Your task to perform on an android device: Open calendar and show me the second week of next month Image 0: 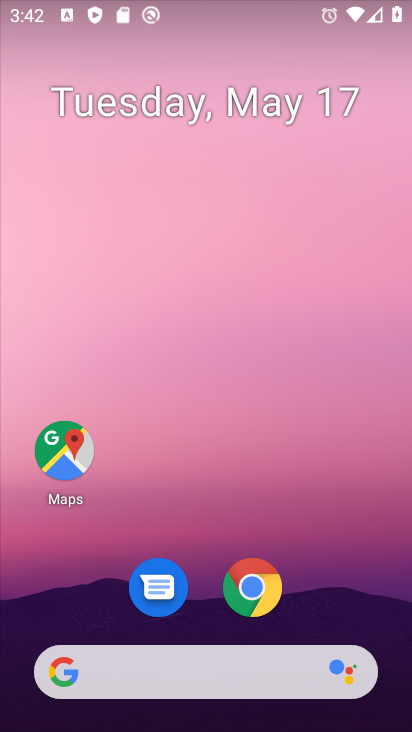
Step 0: drag from (208, 587) to (263, 200)
Your task to perform on an android device: Open calendar and show me the second week of next month Image 1: 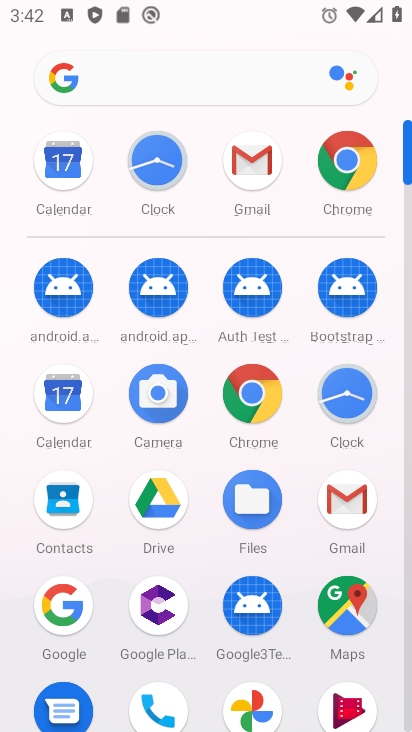
Step 1: click (66, 393)
Your task to perform on an android device: Open calendar and show me the second week of next month Image 2: 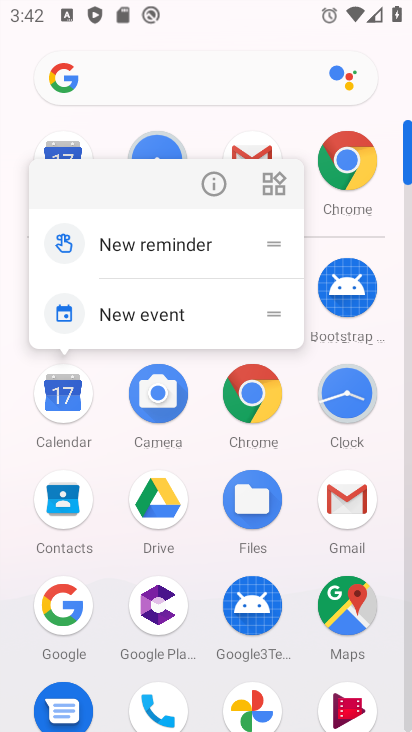
Step 2: click (218, 187)
Your task to perform on an android device: Open calendar and show me the second week of next month Image 3: 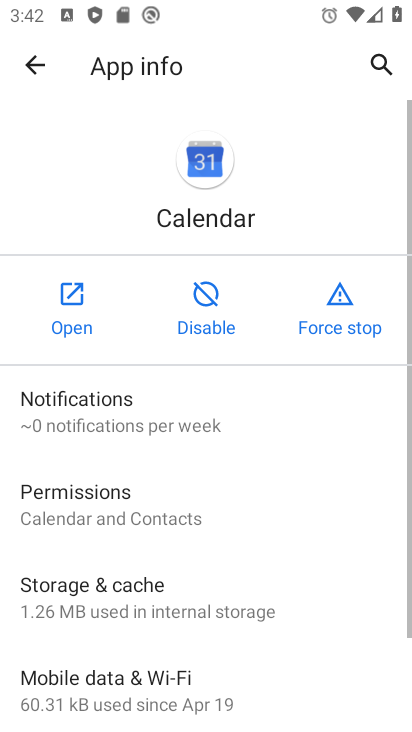
Step 3: click (84, 304)
Your task to perform on an android device: Open calendar and show me the second week of next month Image 4: 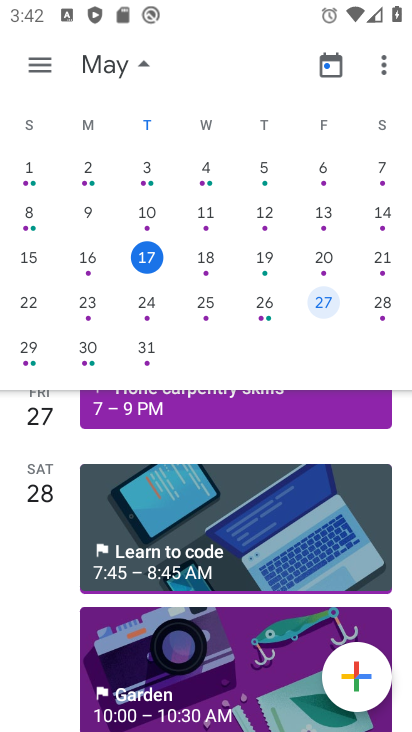
Step 4: drag from (375, 262) to (3, 250)
Your task to perform on an android device: Open calendar and show me the second week of next month Image 5: 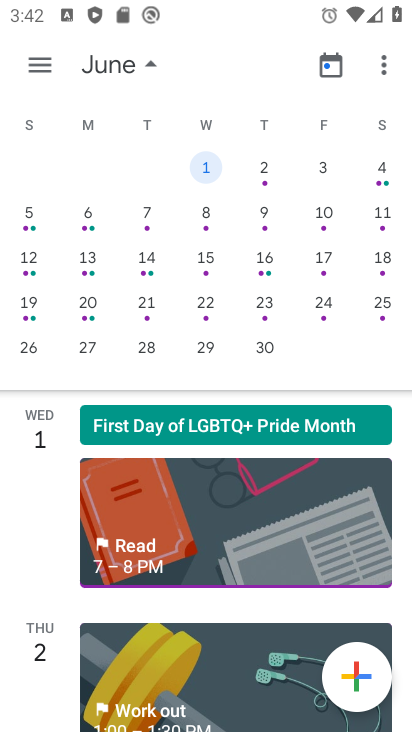
Step 5: click (211, 210)
Your task to perform on an android device: Open calendar and show me the second week of next month Image 6: 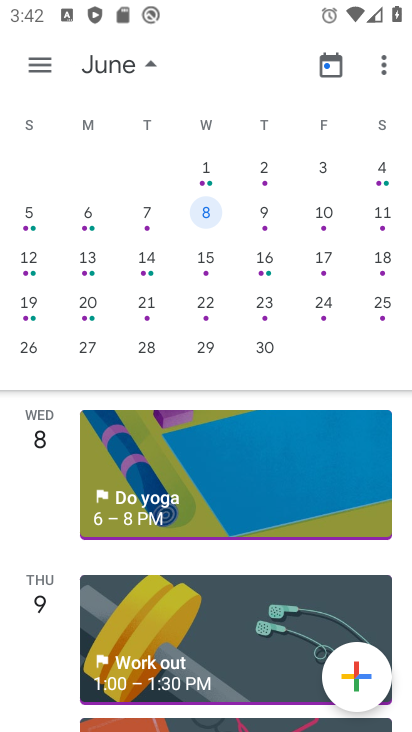
Step 6: task complete